Your task to perform on an android device: When is my next appointment? Image 0: 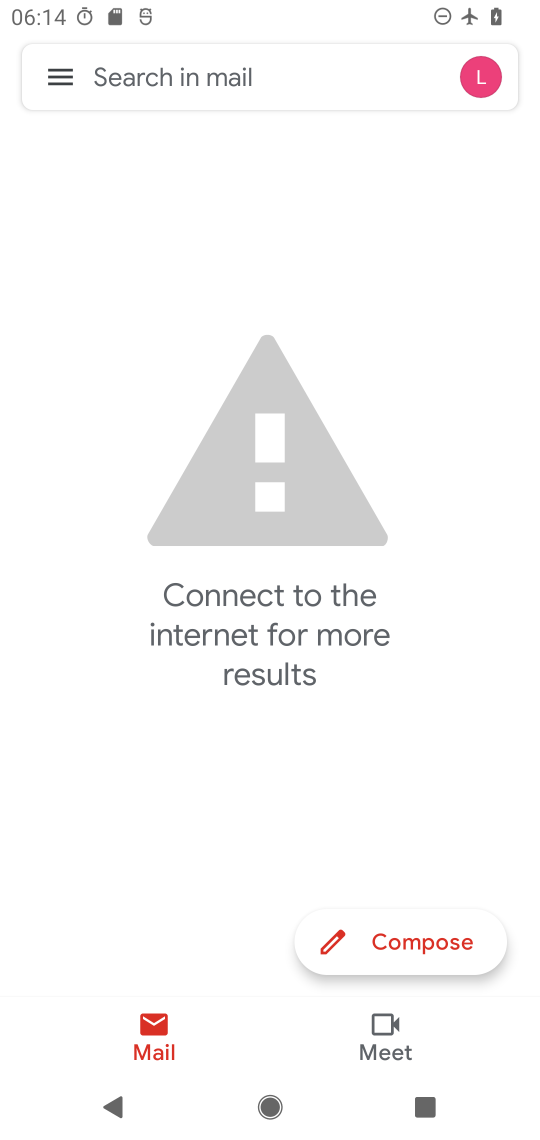
Step 0: press home button
Your task to perform on an android device: When is my next appointment? Image 1: 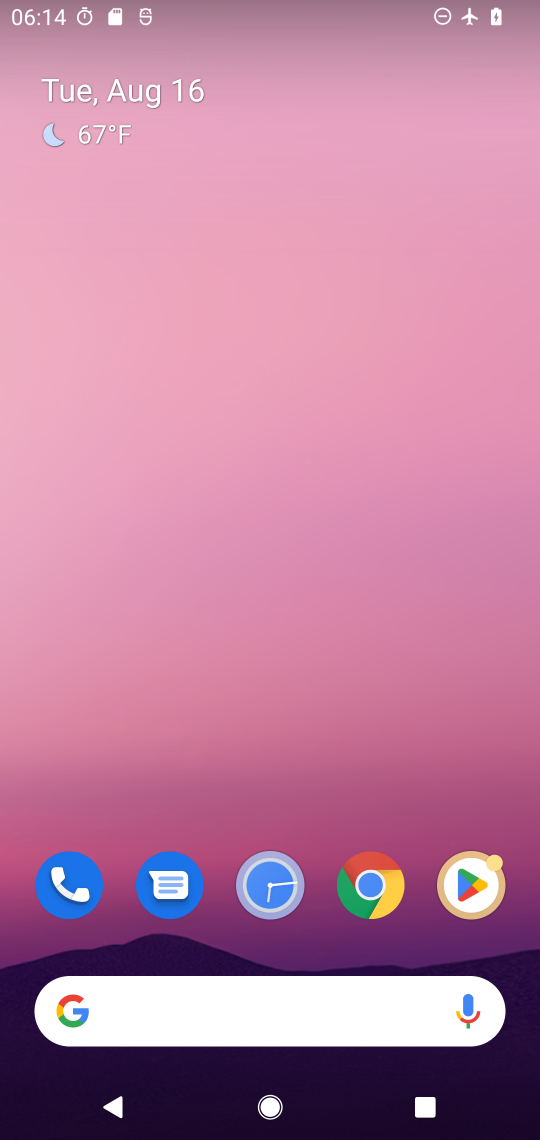
Step 1: drag from (138, 982) to (169, 284)
Your task to perform on an android device: When is my next appointment? Image 2: 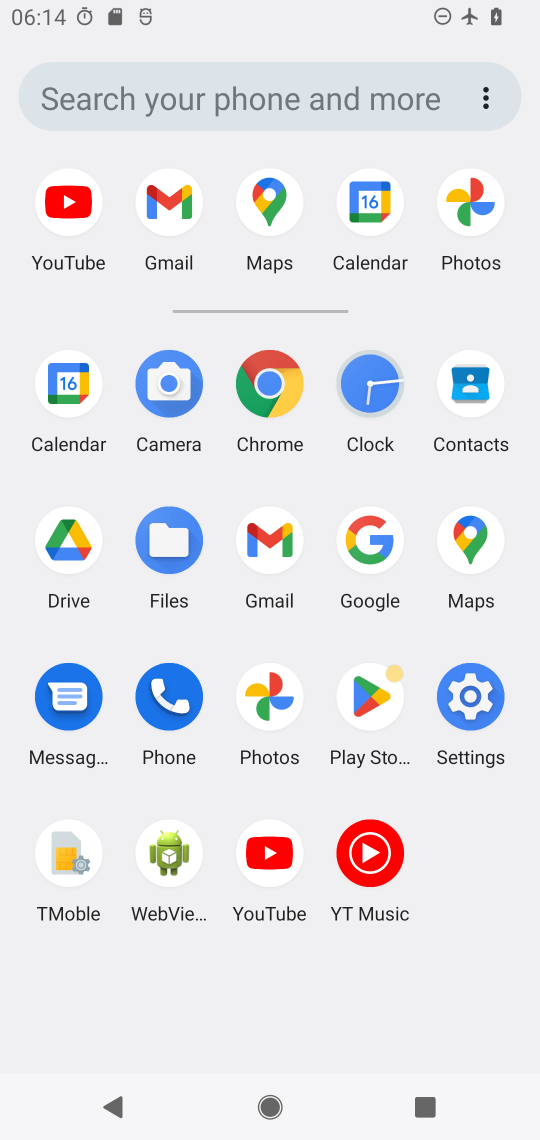
Step 2: click (60, 376)
Your task to perform on an android device: When is my next appointment? Image 3: 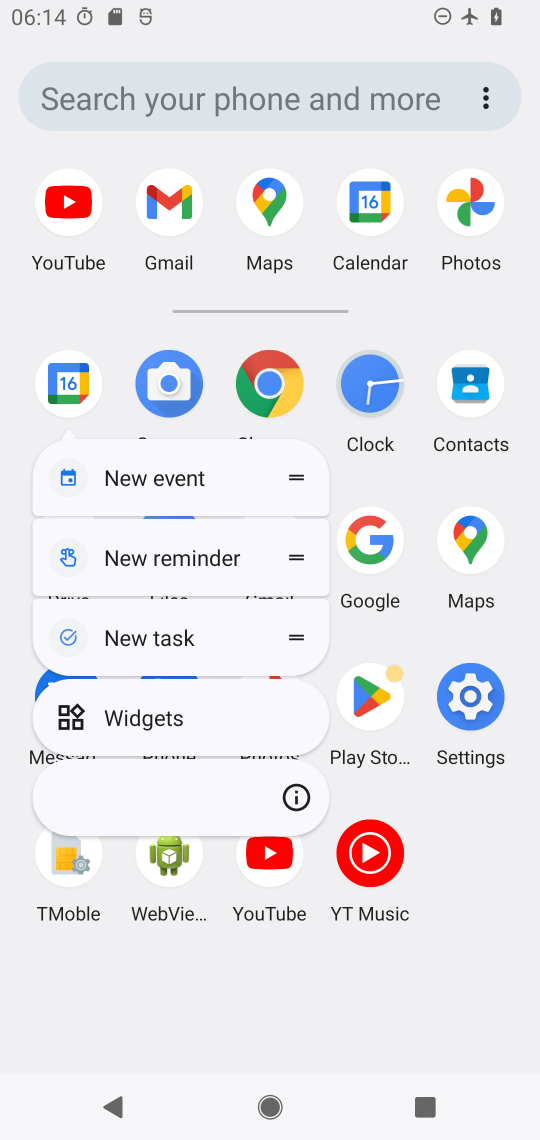
Step 3: click (64, 368)
Your task to perform on an android device: When is my next appointment? Image 4: 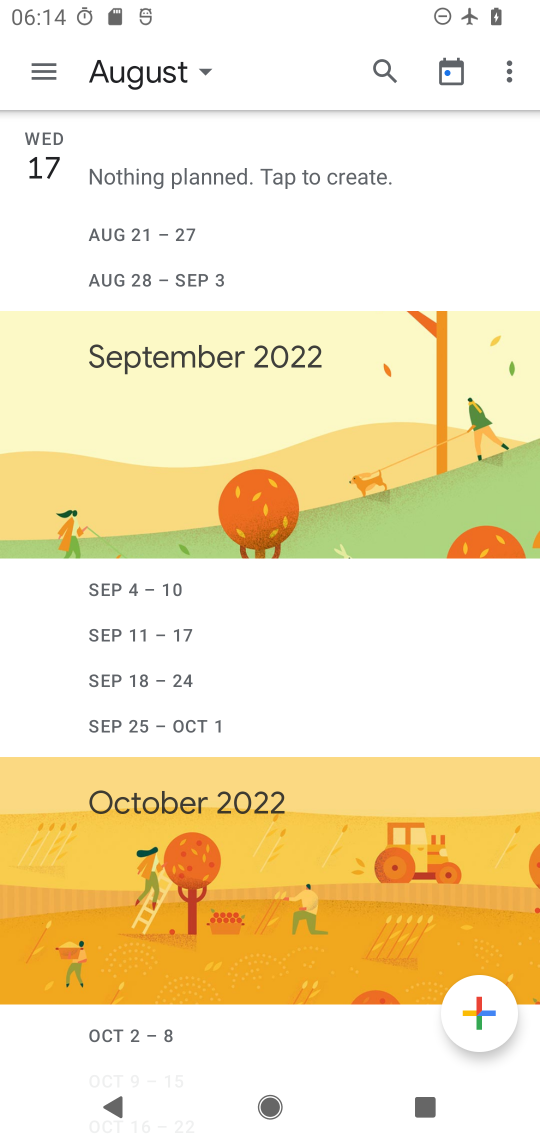
Step 4: click (23, 69)
Your task to perform on an android device: When is my next appointment? Image 5: 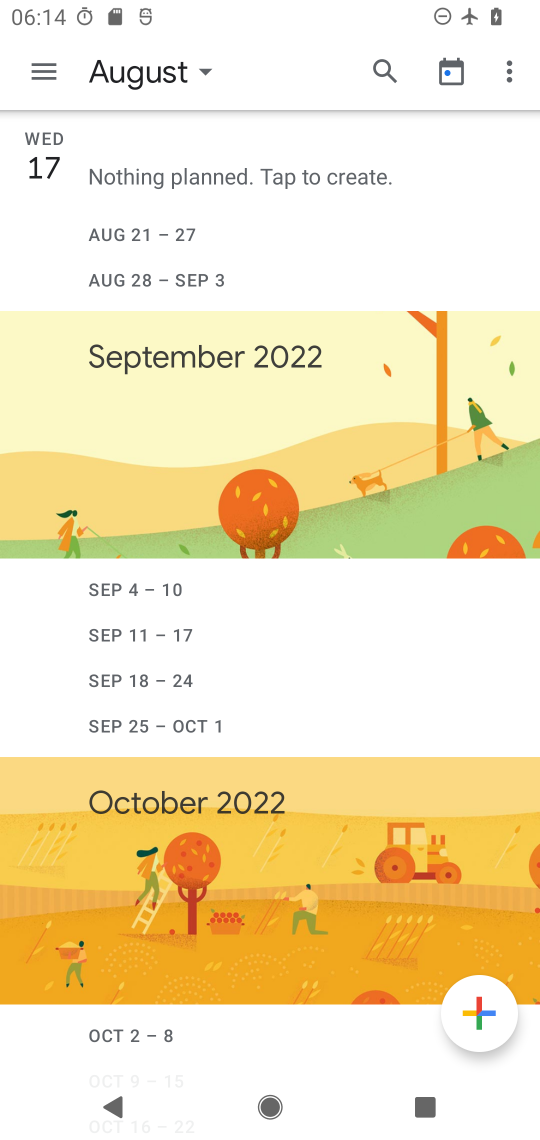
Step 5: click (53, 65)
Your task to perform on an android device: When is my next appointment? Image 6: 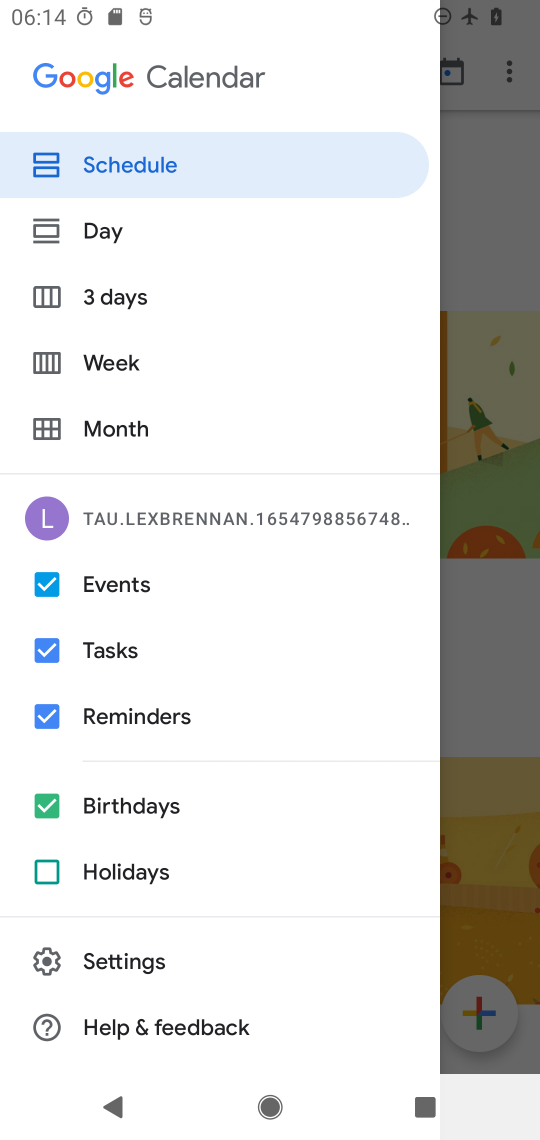
Step 6: click (135, 374)
Your task to perform on an android device: When is my next appointment? Image 7: 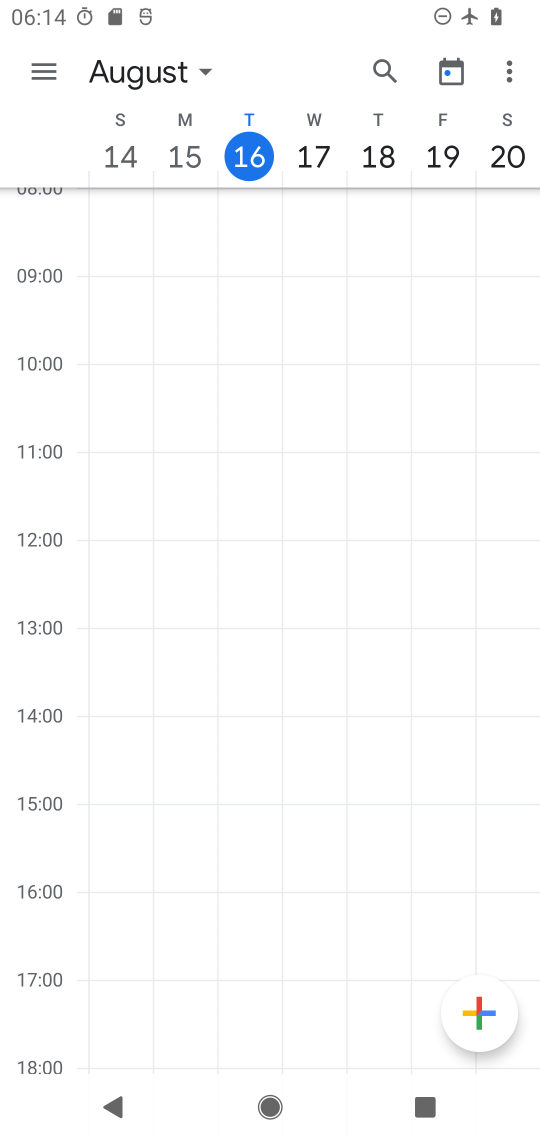
Step 7: click (302, 170)
Your task to perform on an android device: When is my next appointment? Image 8: 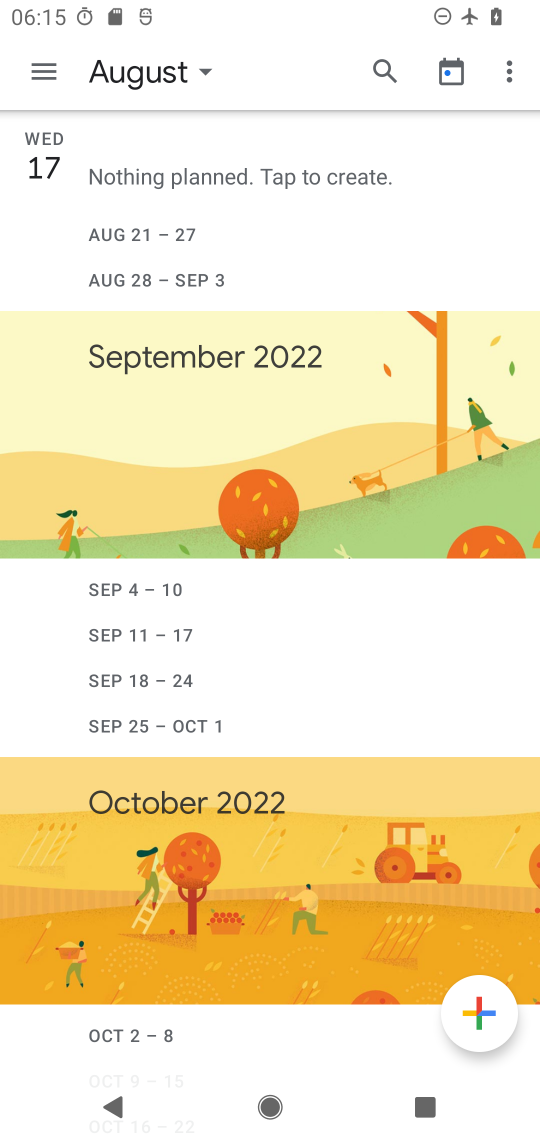
Step 8: task complete